Your task to perform on an android device: Open ESPN.com Image 0: 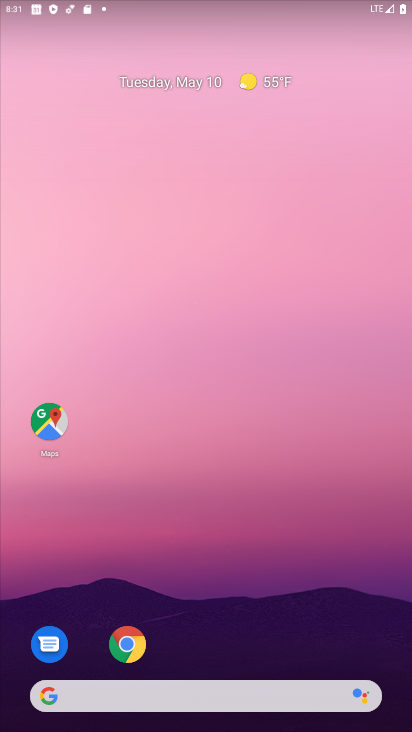
Step 0: click (119, 644)
Your task to perform on an android device: Open ESPN.com Image 1: 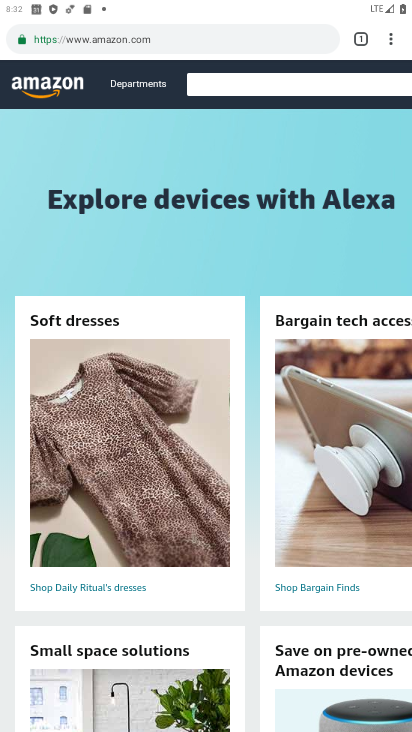
Step 1: click (272, 44)
Your task to perform on an android device: Open ESPN.com Image 2: 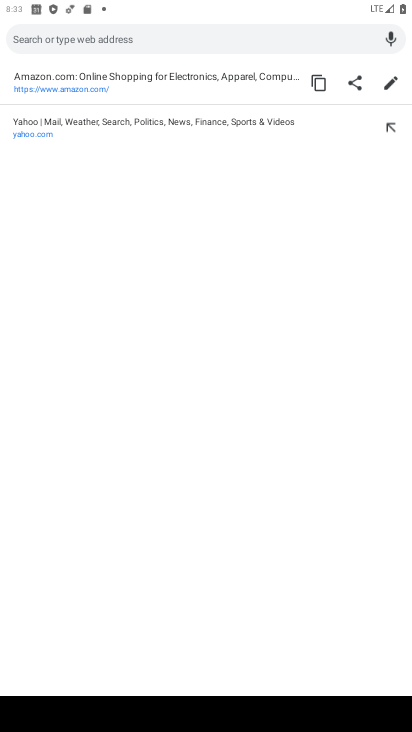
Step 2: type "espn.com"
Your task to perform on an android device: Open ESPN.com Image 3: 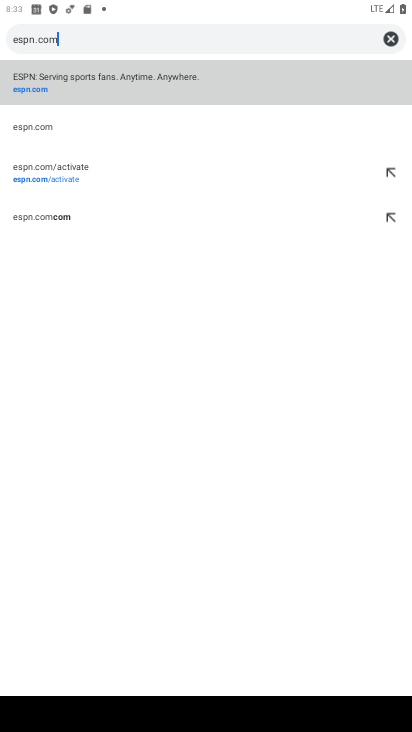
Step 3: click (216, 71)
Your task to perform on an android device: Open ESPN.com Image 4: 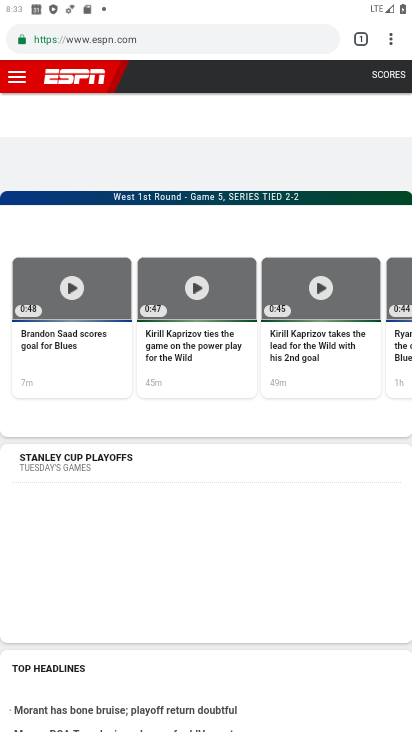
Step 4: task complete